Your task to perform on an android device: Open the phone app and click the voicemail tab. Image 0: 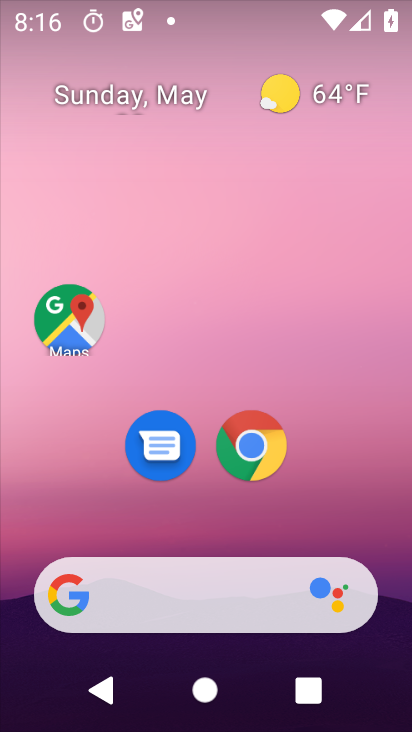
Step 0: drag from (223, 496) to (247, 232)
Your task to perform on an android device: Open the phone app and click the voicemail tab. Image 1: 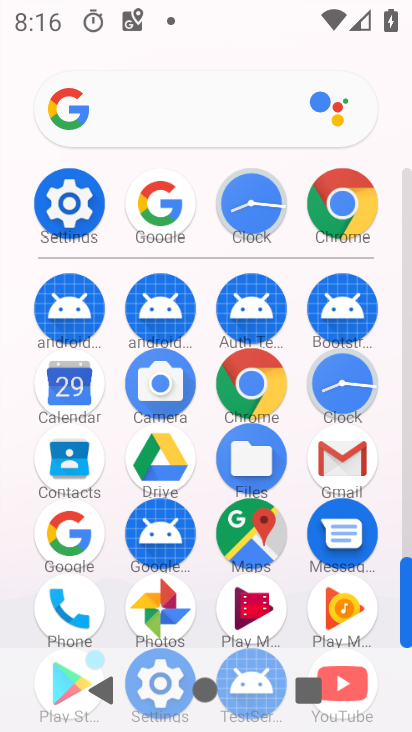
Step 1: click (94, 607)
Your task to perform on an android device: Open the phone app and click the voicemail tab. Image 2: 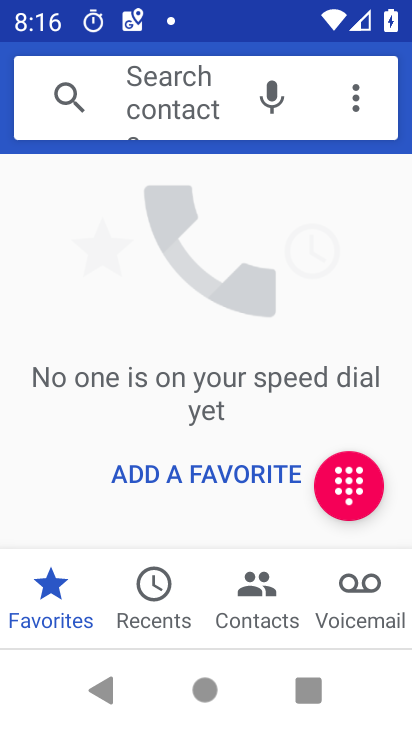
Step 2: click (358, 605)
Your task to perform on an android device: Open the phone app and click the voicemail tab. Image 3: 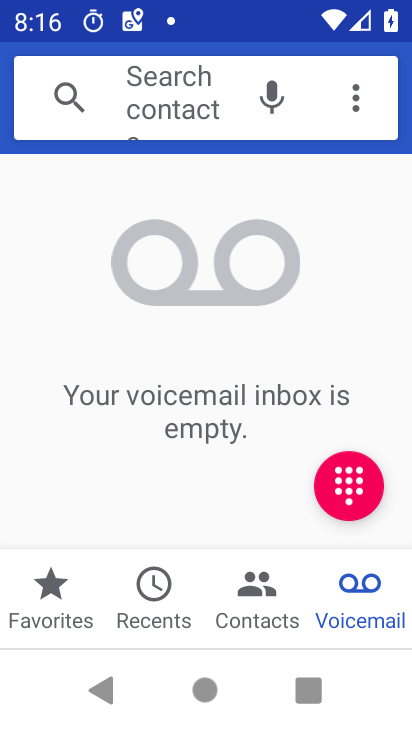
Step 3: task complete